Your task to perform on an android device: Search for razer blade on target, select the first entry, add it to the cart, then select checkout. Image 0: 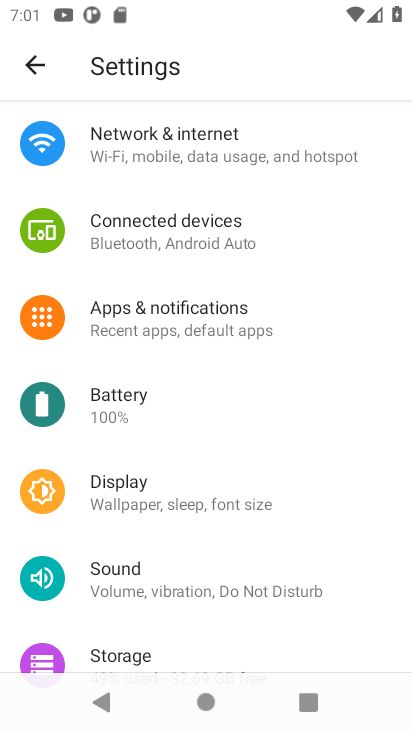
Step 0: press home button
Your task to perform on an android device: Search for razer blade on target, select the first entry, add it to the cart, then select checkout. Image 1: 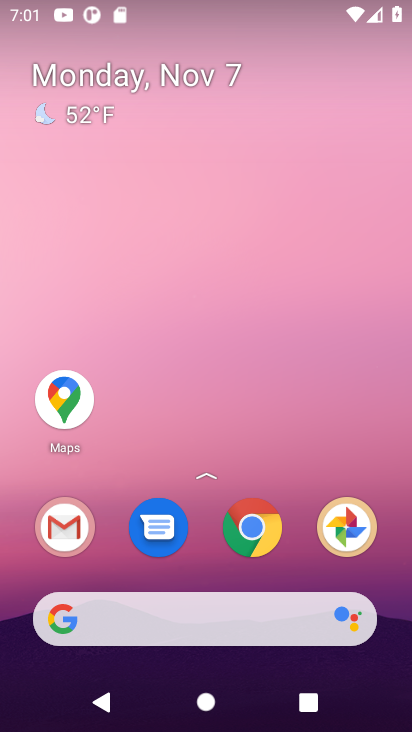
Step 1: click (267, 530)
Your task to perform on an android device: Search for razer blade on target, select the first entry, add it to the cart, then select checkout. Image 2: 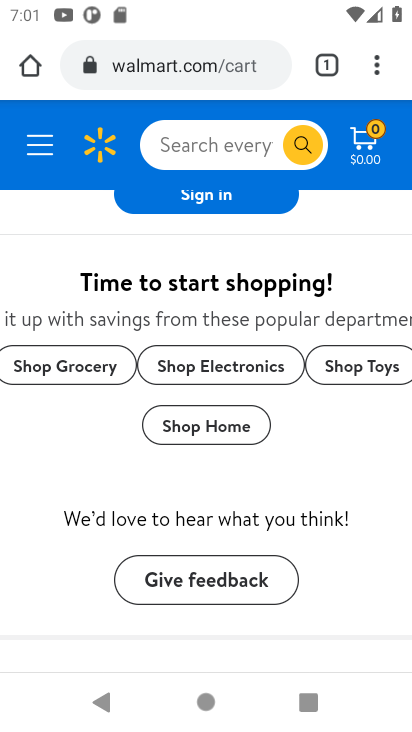
Step 2: click (176, 60)
Your task to perform on an android device: Search for razer blade on target, select the first entry, add it to the cart, then select checkout. Image 3: 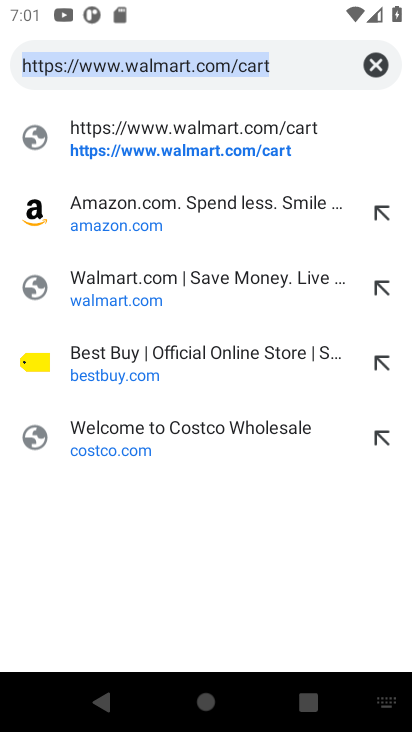
Step 3: type "target"
Your task to perform on an android device: Search for razer blade on target, select the first entry, add it to the cart, then select checkout. Image 4: 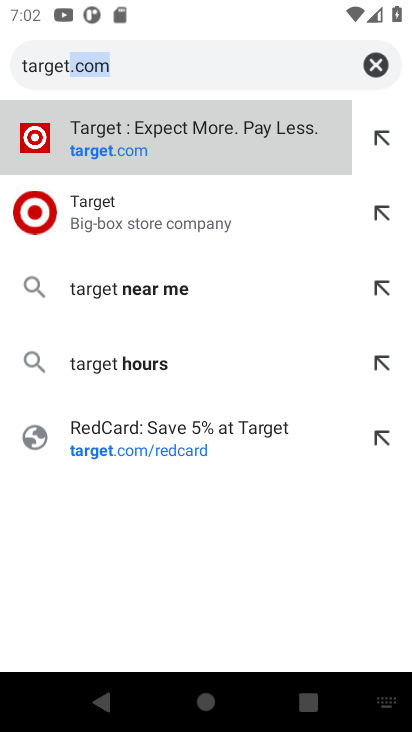
Step 4: click (170, 163)
Your task to perform on an android device: Search for razer blade on target, select the first entry, add it to the cart, then select checkout. Image 5: 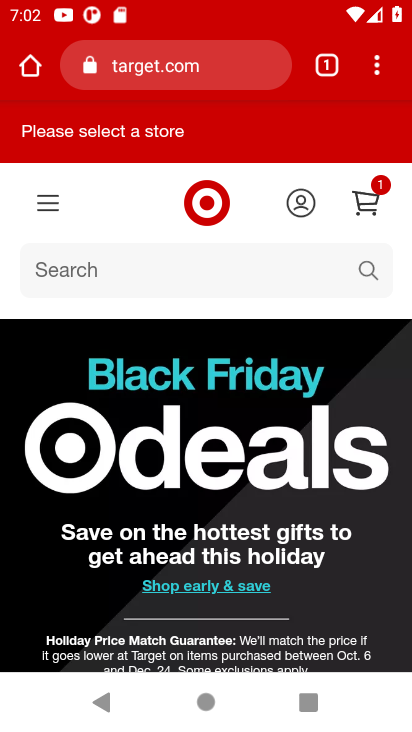
Step 5: click (319, 269)
Your task to perform on an android device: Search for razer blade on target, select the first entry, add it to the cart, then select checkout. Image 6: 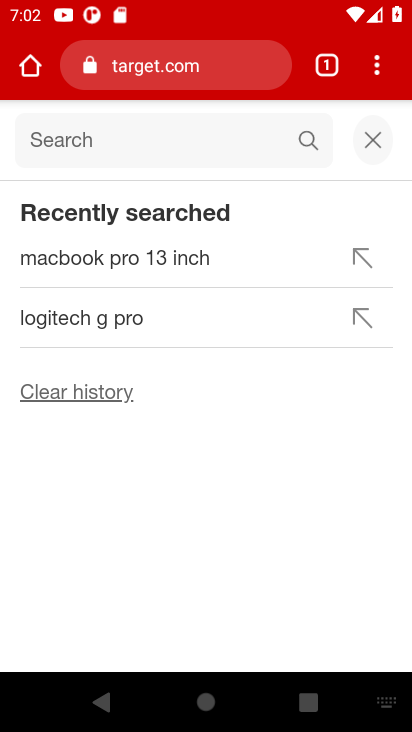
Step 6: type "razer blade"
Your task to perform on an android device: Search for razer blade on target, select the first entry, add it to the cart, then select checkout. Image 7: 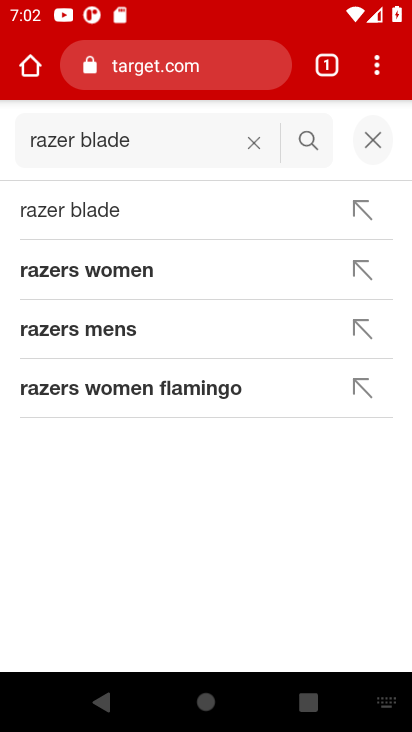
Step 7: press enter
Your task to perform on an android device: Search for razer blade on target, select the first entry, add it to the cart, then select checkout. Image 8: 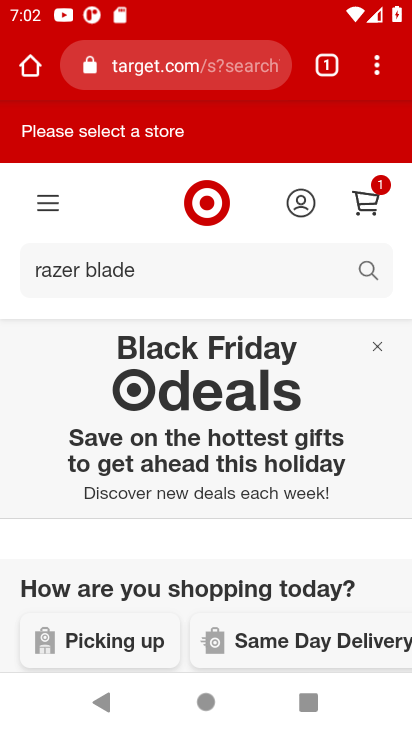
Step 8: drag from (259, 541) to (205, 109)
Your task to perform on an android device: Search for razer blade on target, select the first entry, add it to the cart, then select checkout. Image 9: 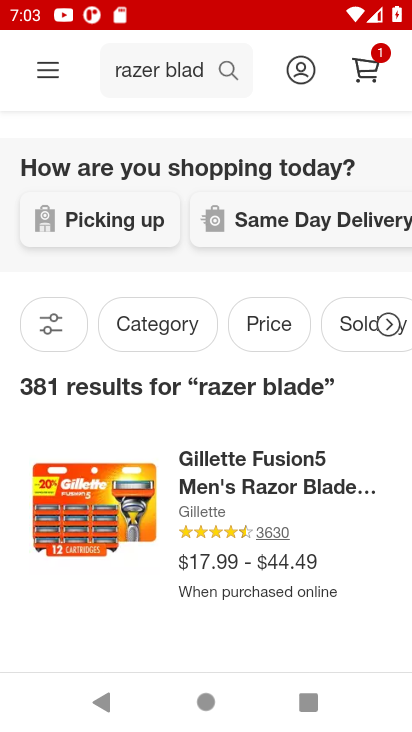
Step 9: drag from (185, 589) to (95, 228)
Your task to perform on an android device: Search for razer blade on target, select the first entry, add it to the cart, then select checkout. Image 10: 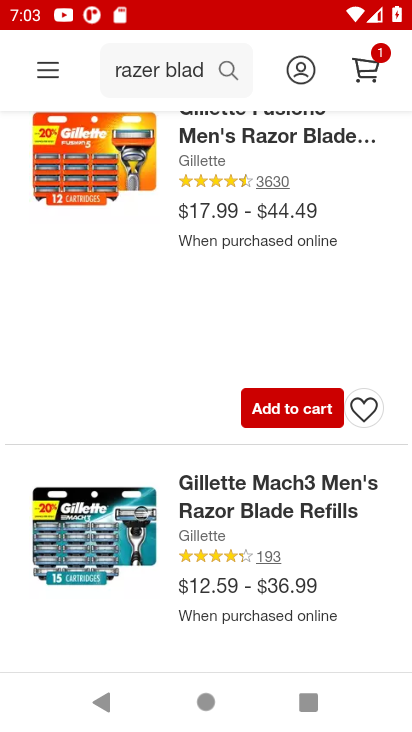
Step 10: click (291, 416)
Your task to perform on an android device: Search for razer blade on target, select the first entry, add it to the cart, then select checkout. Image 11: 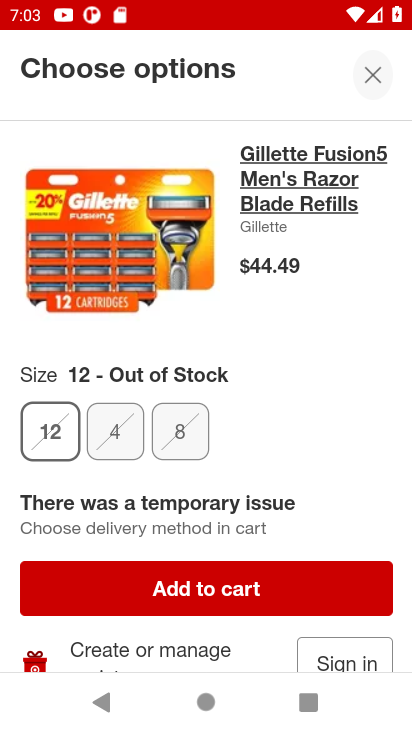
Step 11: click (328, 607)
Your task to perform on an android device: Search for razer blade on target, select the first entry, add it to the cart, then select checkout. Image 12: 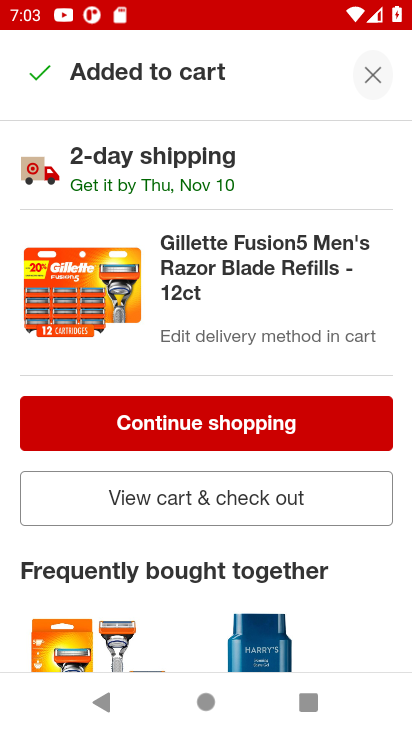
Step 12: click (311, 493)
Your task to perform on an android device: Search for razer blade on target, select the first entry, add it to the cart, then select checkout. Image 13: 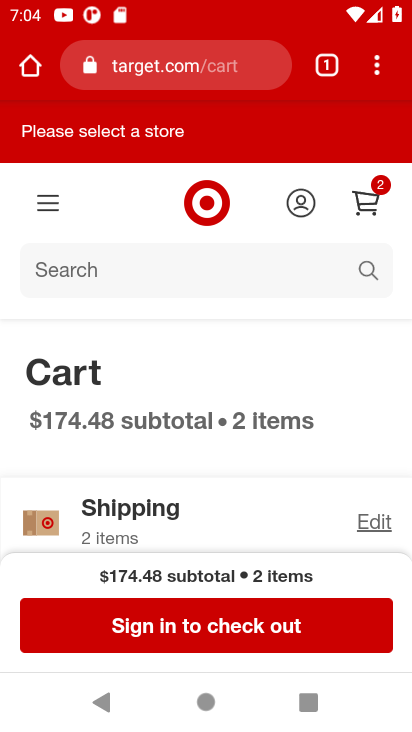
Step 13: click (267, 646)
Your task to perform on an android device: Search for razer blade on target, select the first entry, add it to the cart, then select checkout. Image 14: 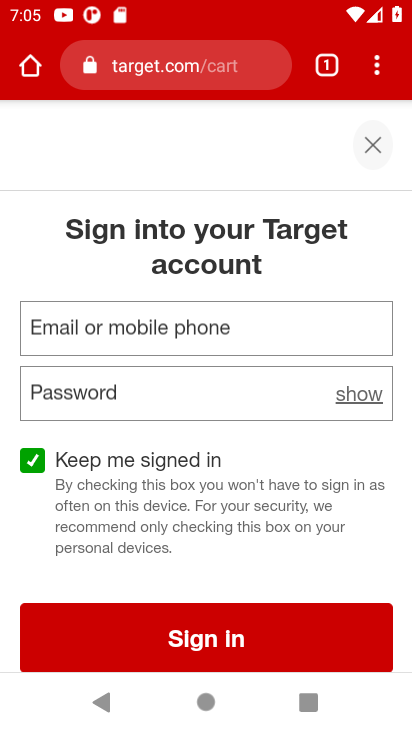
Step 14: task complete